Your task to perform on an android device: turn on showing notifications on the lock screen Image 0: 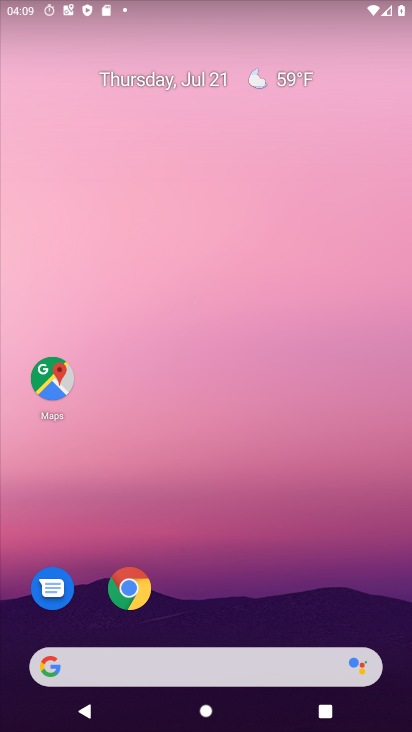
Step 0: drag from (214, 569) to (191, 119)
Your task to perform on an android device: turn on showing notifications on the lock screen Image 1: 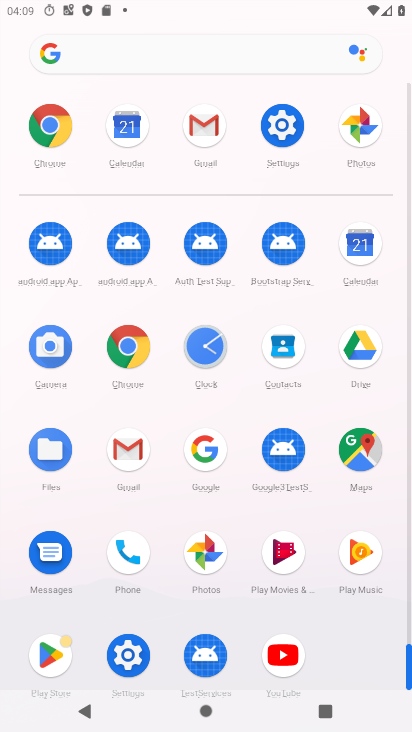
Step 1: click (125, 658)
Your task to perform on an android device: turn on showing notifications on the lock screen Image 2: 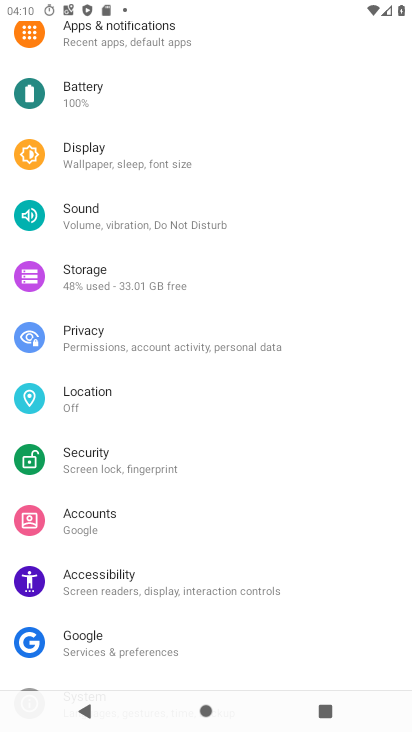
Step 2: click (137, 47)
Your task to perform on an android device: turn on showing notifications on the lock screen Image 3: 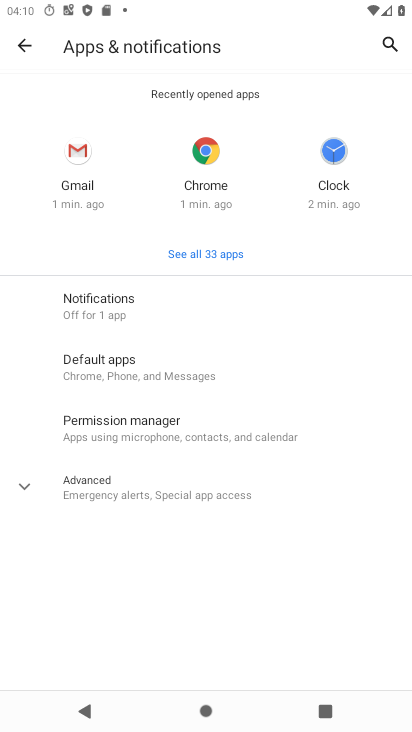
Step 3: click (93, 295)
Your task to perform on an android device: turn on showing notifications on the lock screen Image 4: 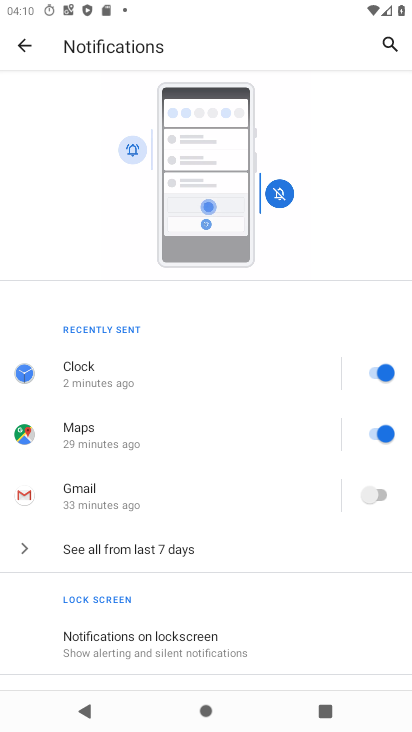
Step 4: drag from (158, 568) to (184, 370)
Your task to perform on an android device: turn on showing notifications on the lock screen Image 5: 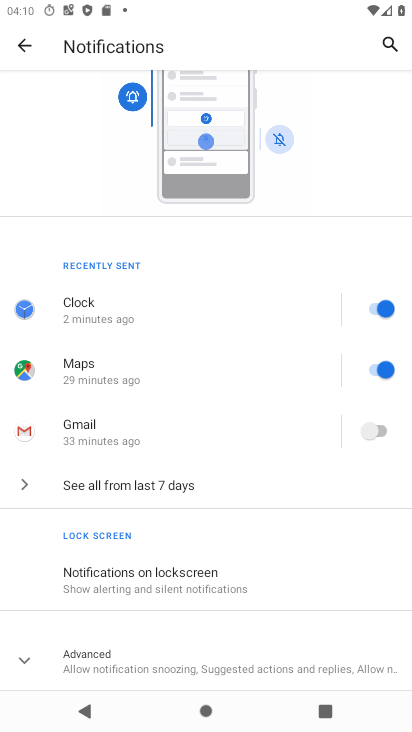
Step 5: click (133, 589)
Your task to perform on an android device: turn on showing notifications on the lock screen Image 6: 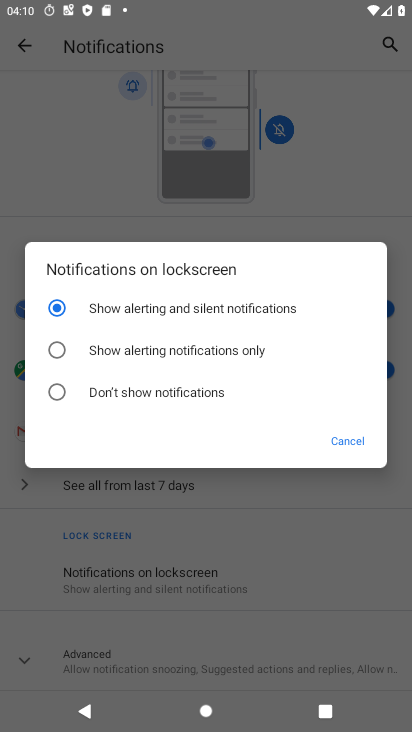
Step 6: click (355, 436)
Your task to perform on an android device: turn on showing notifications on the lock screen Image 7: 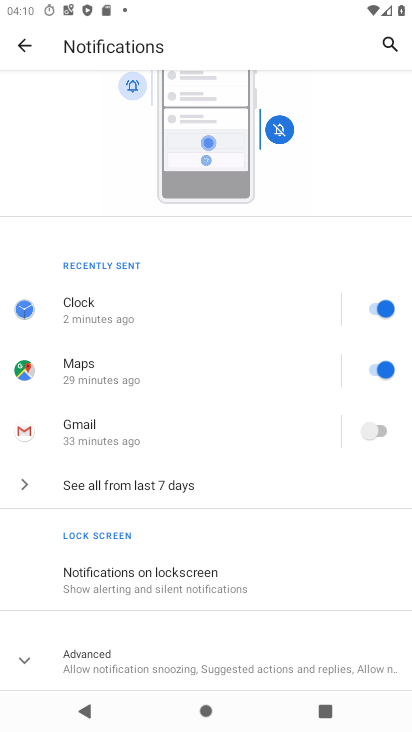
Step 7: task complete